Your task to perform on an android device: check android version Image 0: 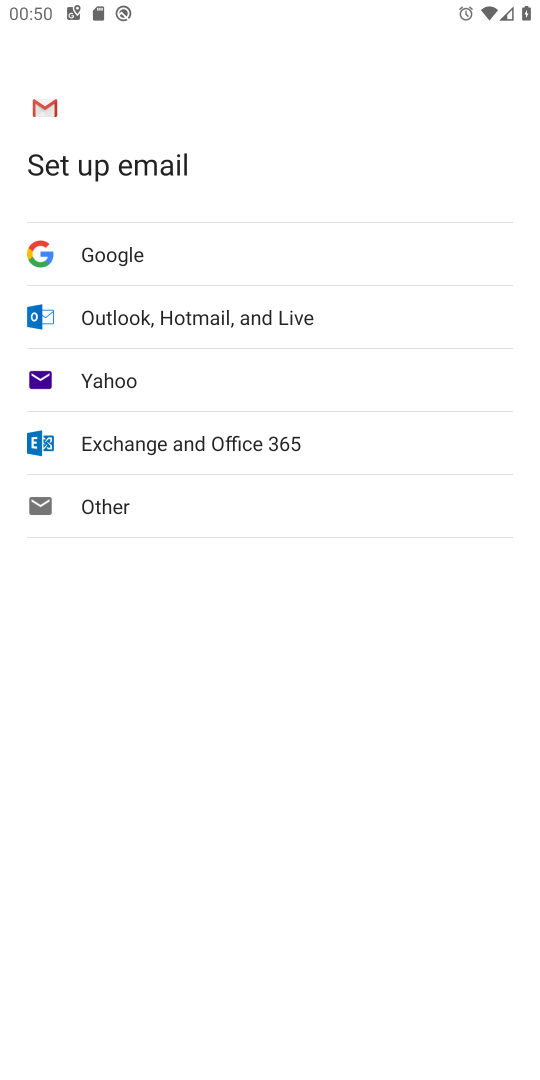
Step 0: press home button
Your task to perform on an android device: check android version Image 1: 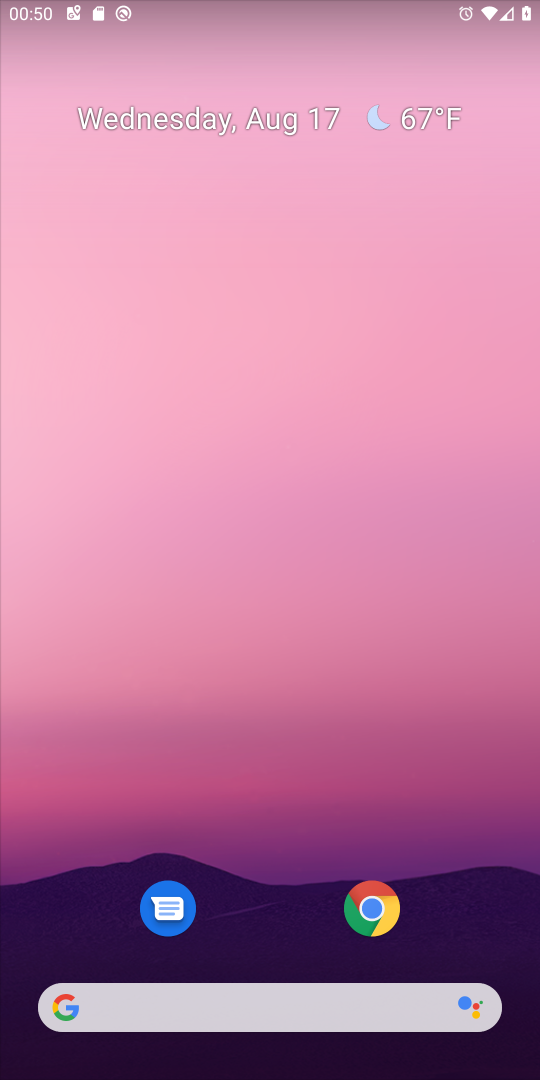
Step 1: drag from (215, 766) to (189, 273)
Your task to perform on an android device: check android version Image 2: 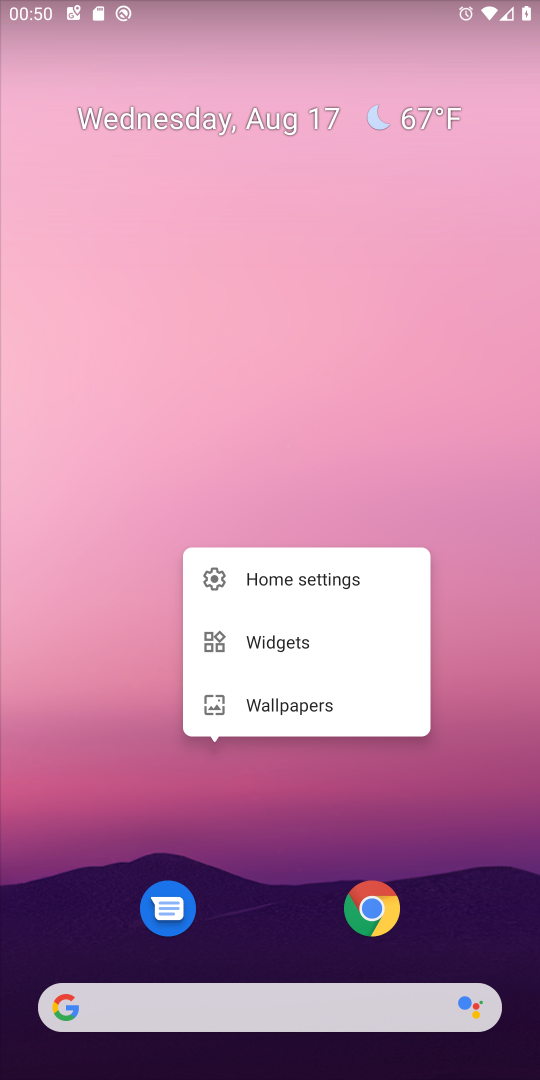
Step 2: click (213, 818)
Your task to perform on an android device: check android version Image 3: 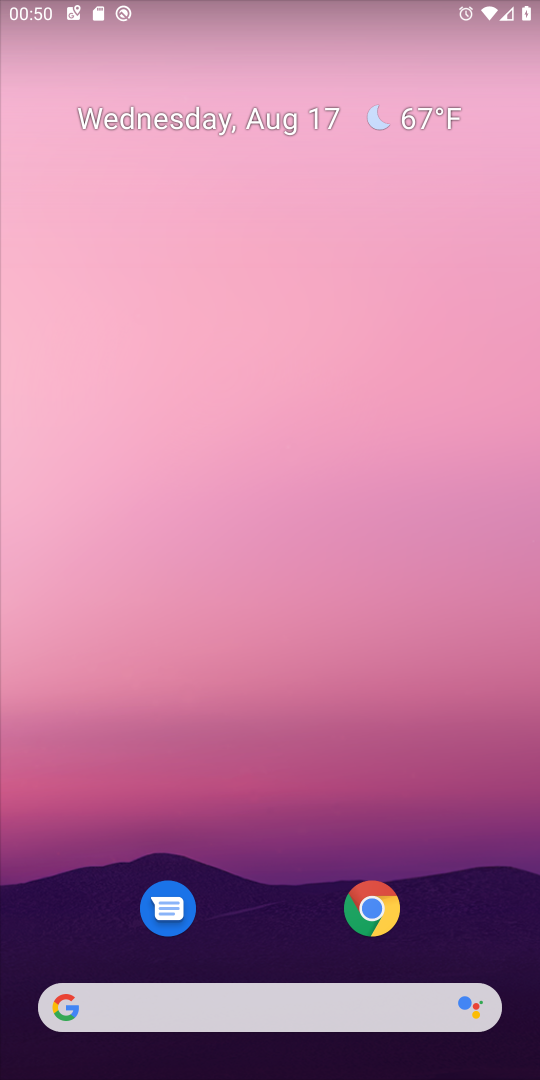
Step 3: click (256, 884)
Your task to perform on an android device: check android version Image 4: 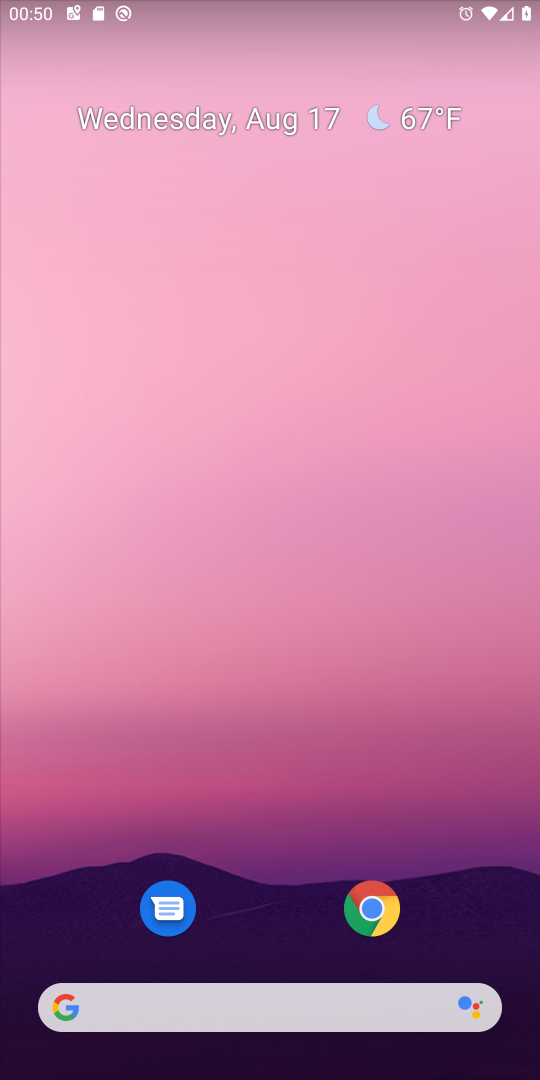
Step 4: drag from (262, 850) to (284, 384)
Your task to perform on an android device: check android version Image 5: 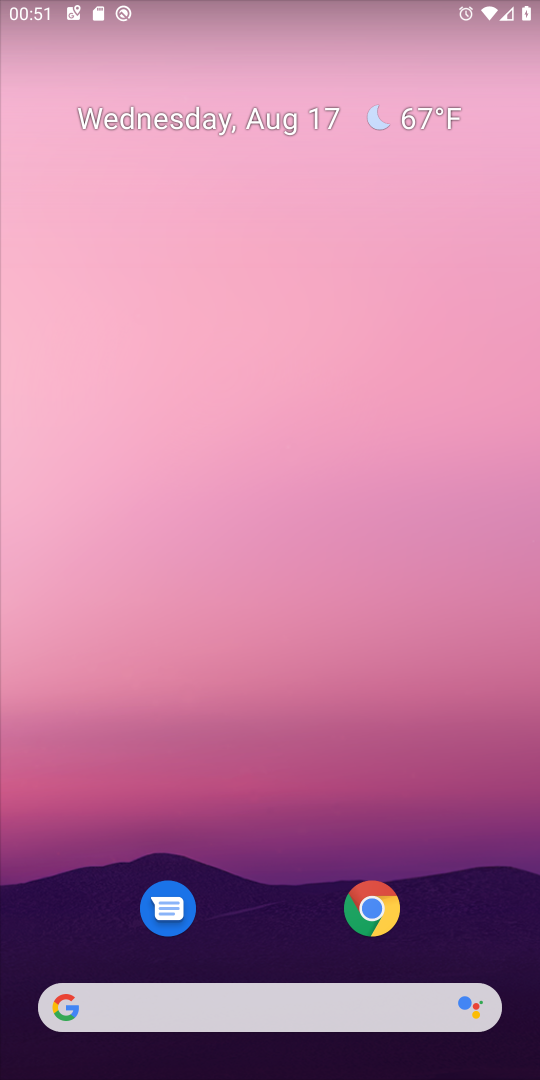
Step 5: drag from (252, 856) to (312, 187)
Your task to perform on an android device: check android version Image 6: 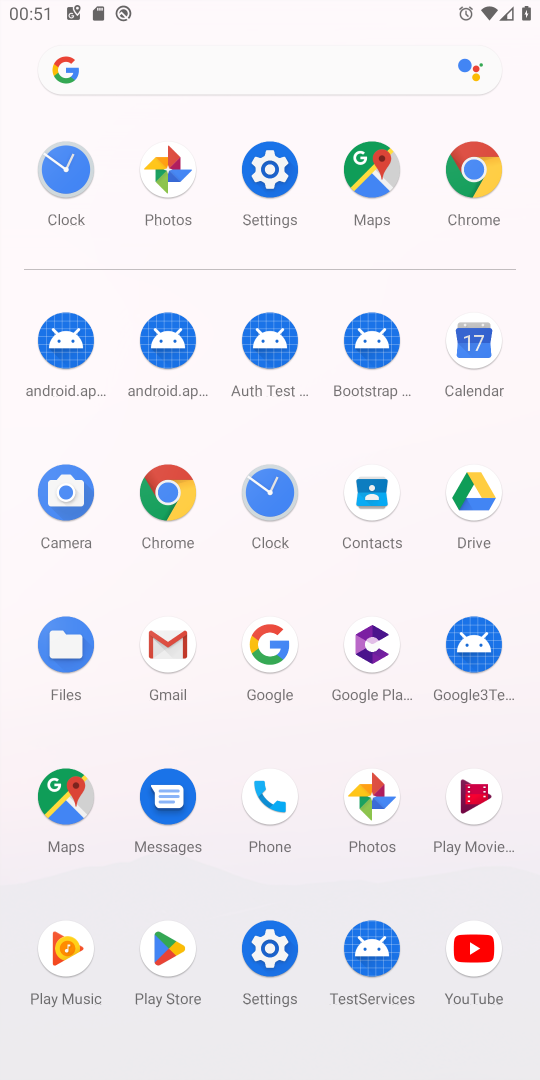
Step 6: click (273, 173)
Your task to perform on an android device: check android version Image 7: 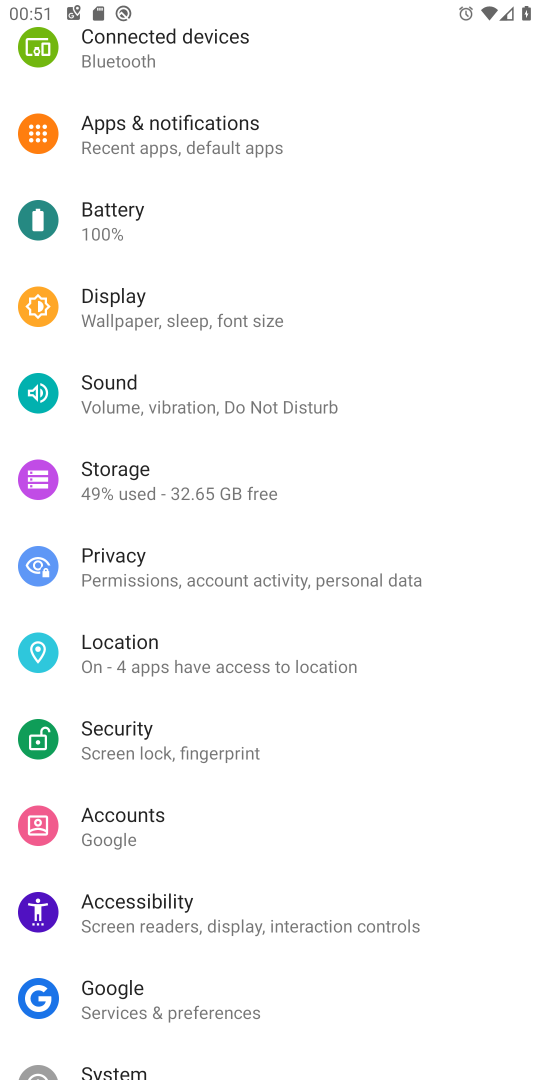
Step 7: drag from (263, 808) to (263, 326)
Your task to perform on an android device: check android version Image 8: 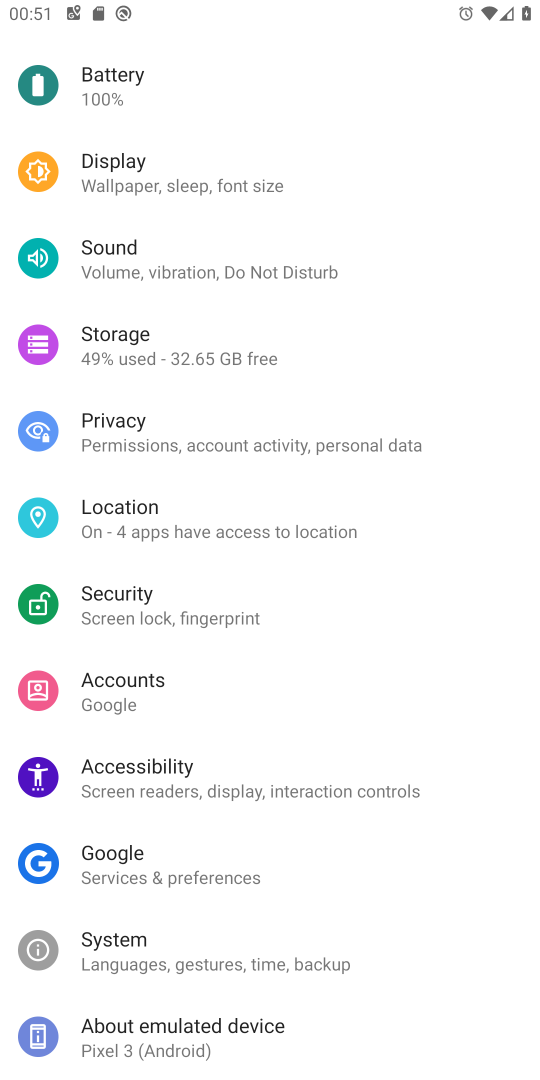
Step 8: drag from (257, 816) to (186, 445)
Your task to perform on an android device: check android version Image 9: 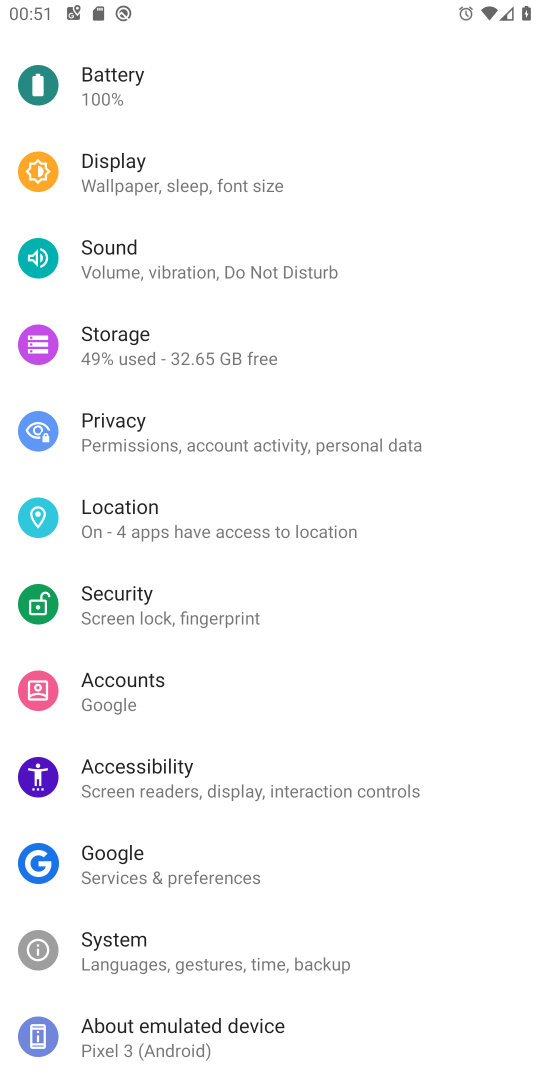
Step 9: drag from (184, 824) to (184, 341)
Your task to perform on an android device: check android version Image 10: 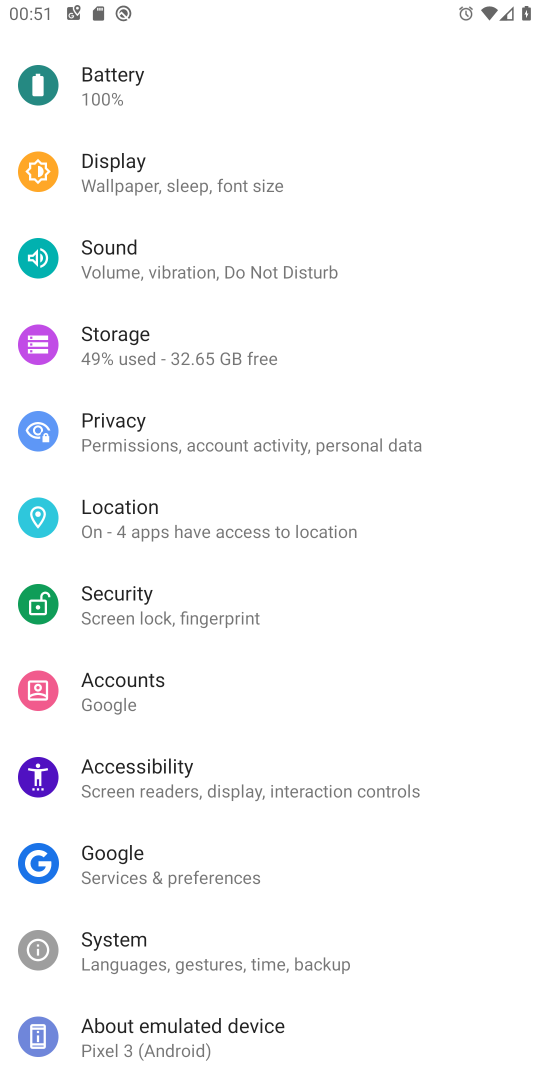
Step 10: drag from (250, 889) to (239, 487)
Your task to perform on an android device: check android version Image 11: 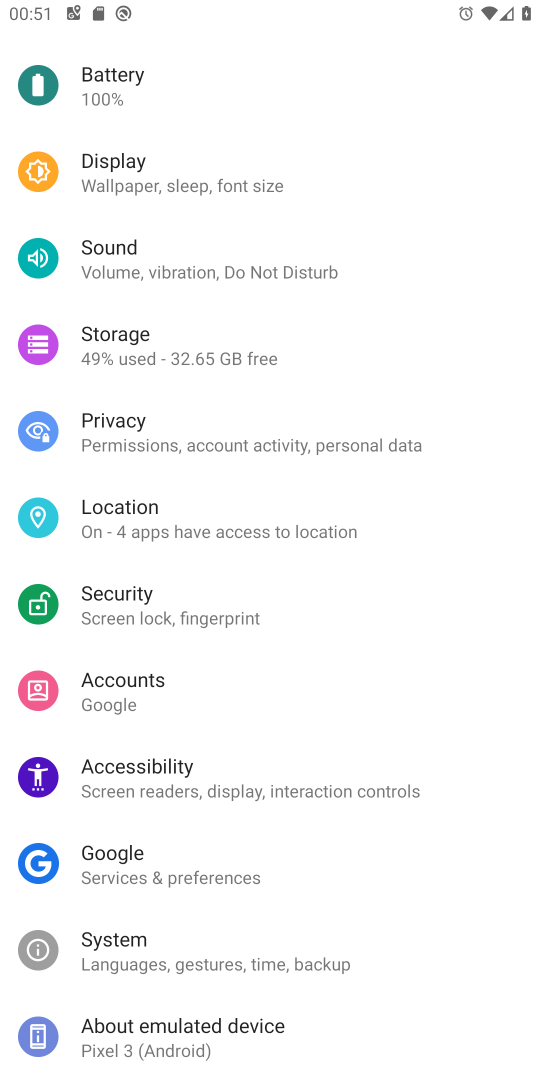
Step 11: click (220, 1035)
Your task to perform on an android device: check android version Image 12: 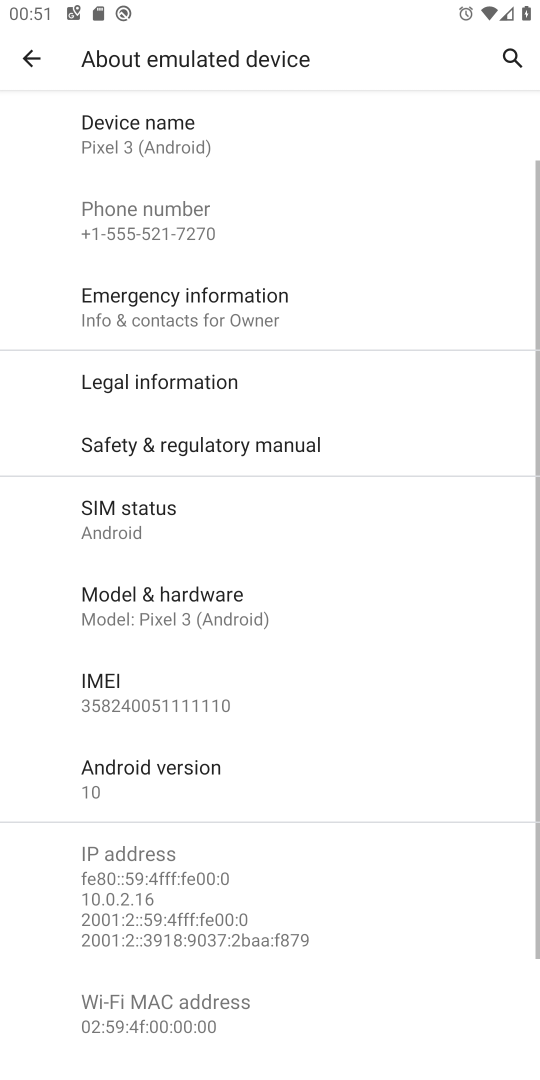
Step 12: click (179, 767)
Your task to perform on an android device: check android version Image 13: 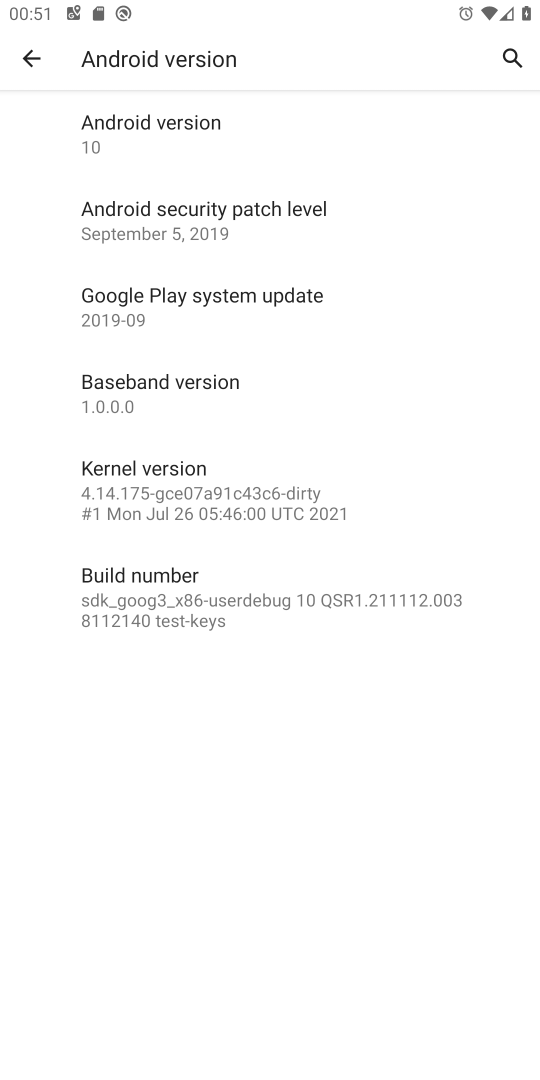
Step 13: task complete